Your task to perform on an android device: delete the emails in spam in the gmail app Image 0: 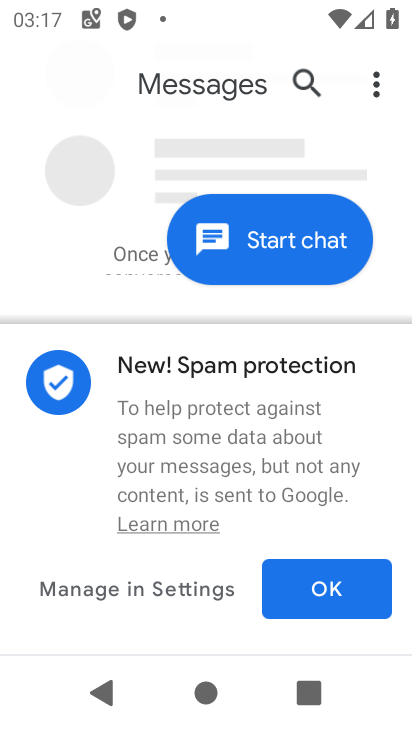
Step 0: drag from (203, 525) to (270, 51)
Your task to perform on an android device: delete the emails in spam in the gmail app Image 1: 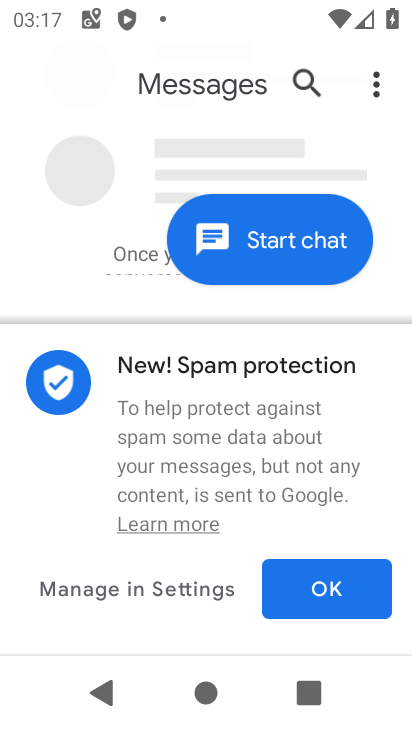
Step 1: press home button
Your task to perform on an android device: delete the emails in spam in the gmail app Image 2: 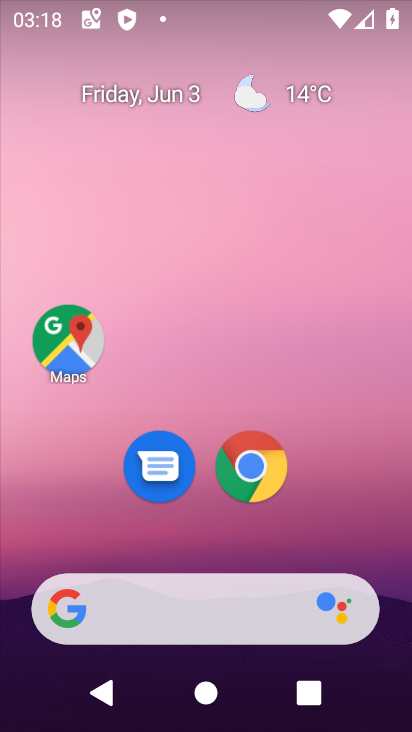
Step 2: drag from (201, 531) to (214, 0)
Your task to perform on an android device: delete the emails in spam in the gmail app Image 3: 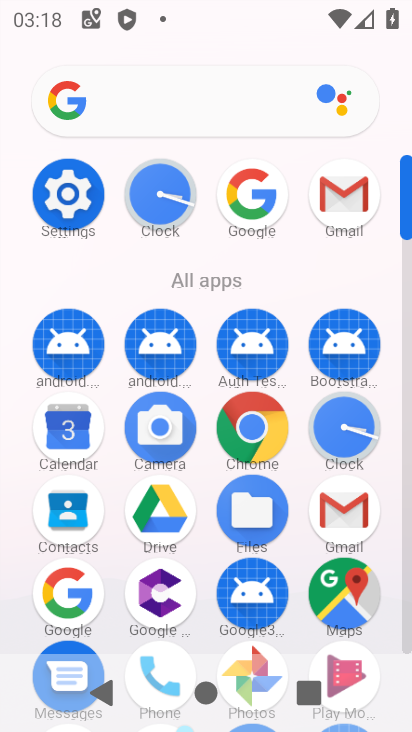
Step 3: click (340, 188)
Your task to perform on an android device: delete the emails in spam in the gmail app Image 4: 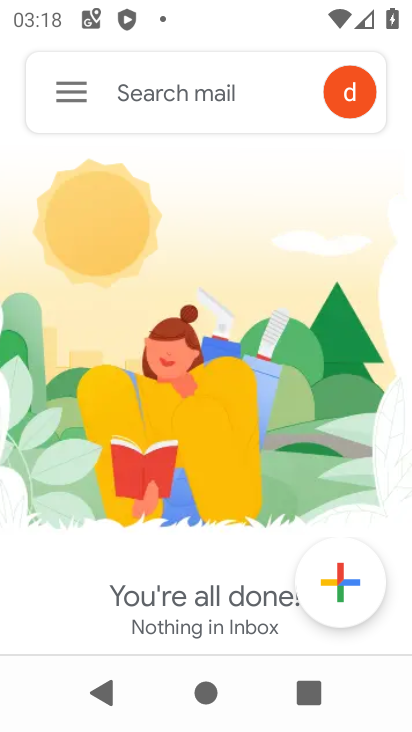
Step 4: click (69, 88)
Your task to perform on an android device: delete the emails in spam in the gmail app Image 5: 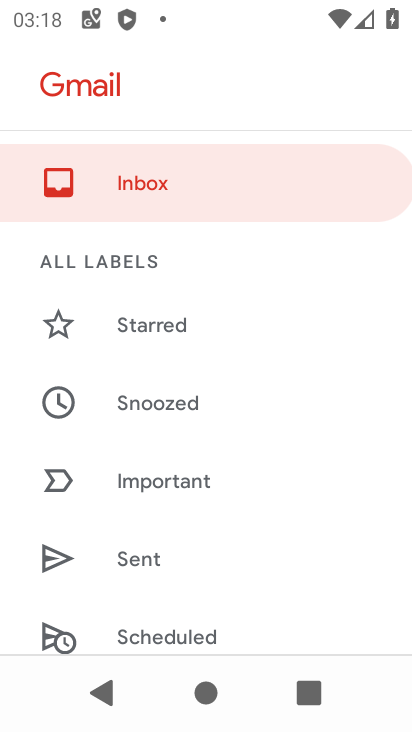
Step 5: drag from (216, 609) to (256, 180)
Your task to perform on an android device: delete the emails in spam in the gmail app Image 6: 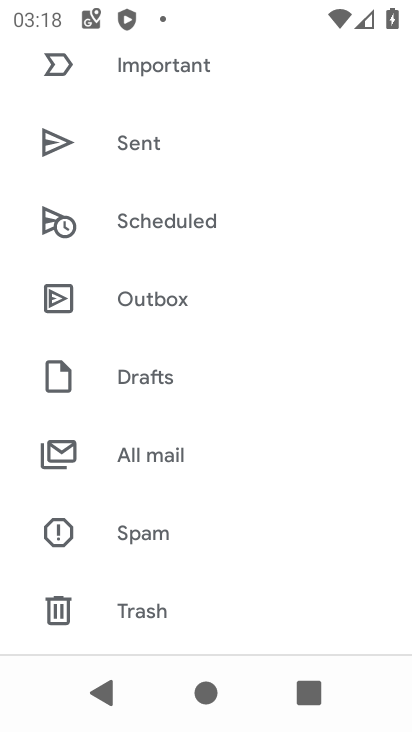
Step 6: click (179, 529)
Your task to perform on an android device: delete the emails in spam in the gmail app Image 7: 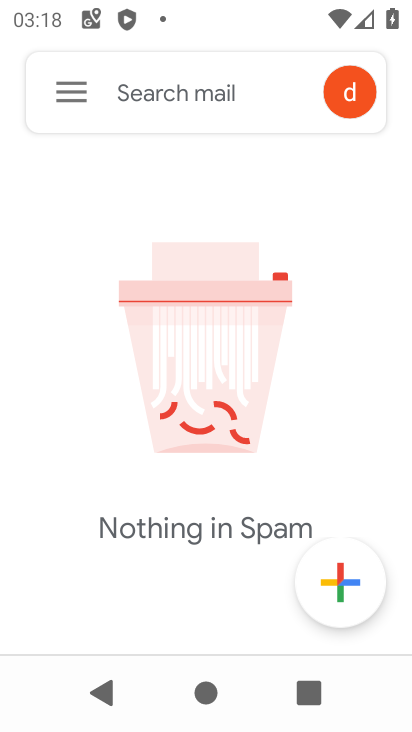
Step 7: task complete